Your task to perform on an android device: turn off notifications settings in the gmail app Image 0: 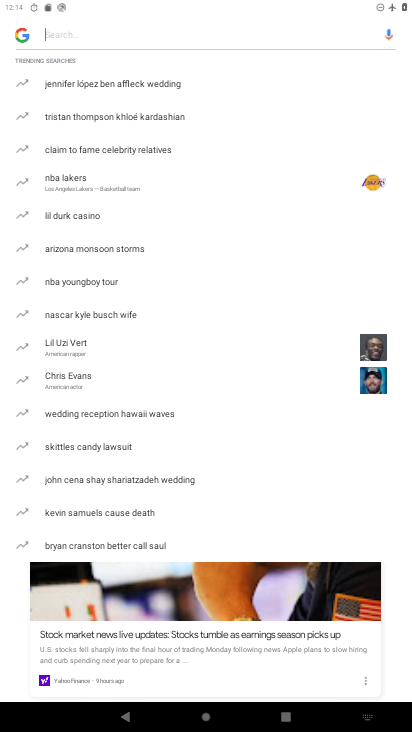
Step 0: press home button
Your task to perform on an android device: turn off notifications settings in the gmail app Image 1: 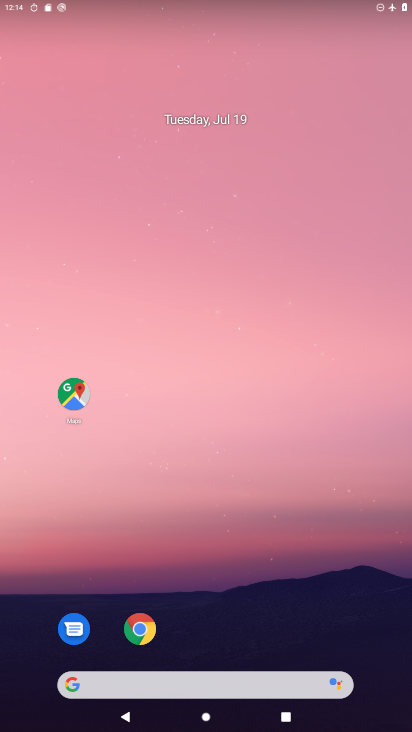
Step 1: drag from (278, 574) to (244, 136)
Your task to perform on an android device: turn off notifications settings in the gmail app Image 2: 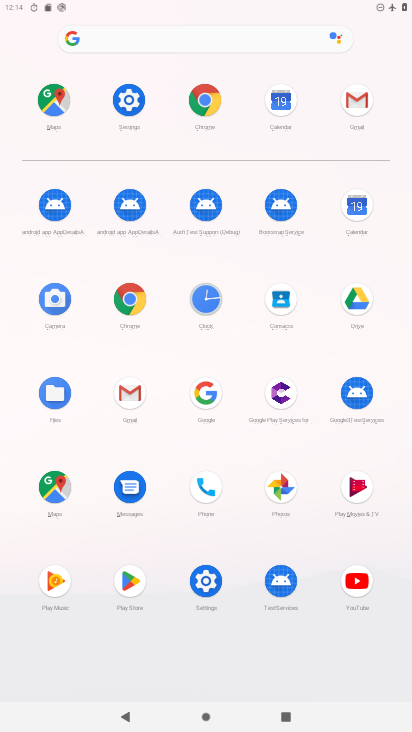
Step 2: click (366, 100)
Your task to perform on an android device: turn off notifications settings in the gmail app Image 3: 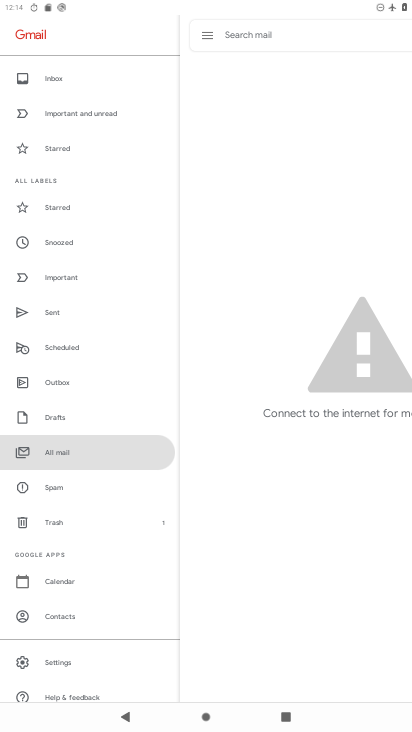
Step 3: click (68, 666)
Your task to perform on an android device: turn off notifications settings in the gmail app Image 4: 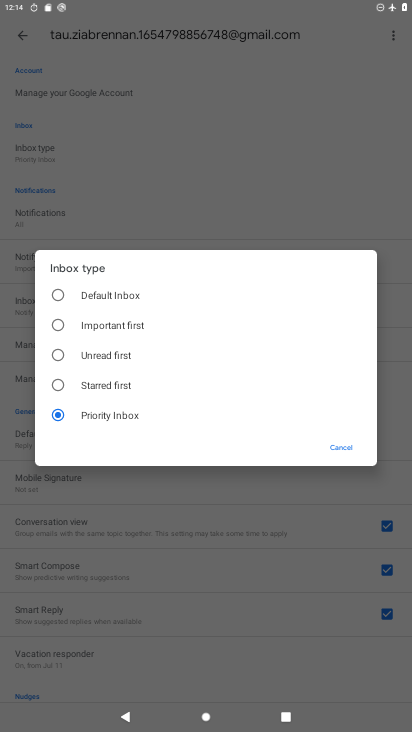
Step 4: click (332, 448)
Your task to perform on an android device: turn off notifications settings in the gmail app Image 5: 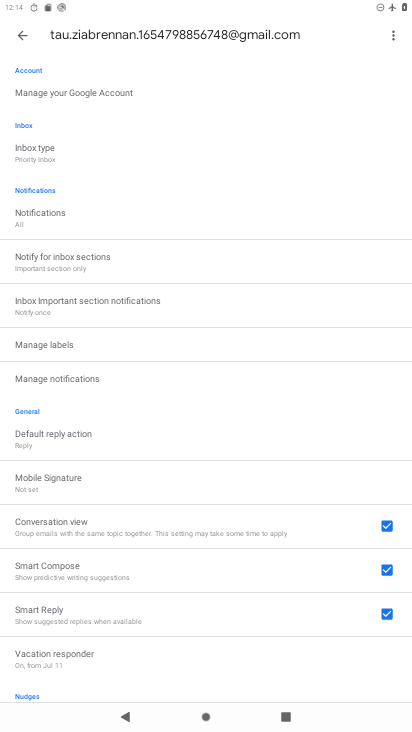
Step 5: click (40, 385)
Your task to perform on an android device: turn off notifications settings in the gmail app Image 6: 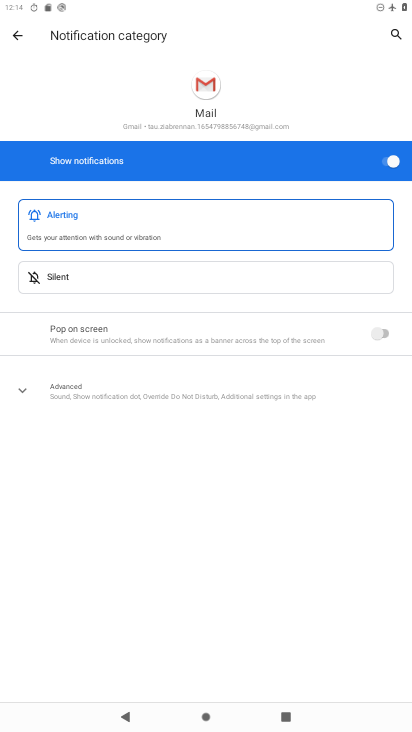
Step 6: click (380, 155)
Your task to perform on an android device: turn off notifications settings in the gmail app Image 7: 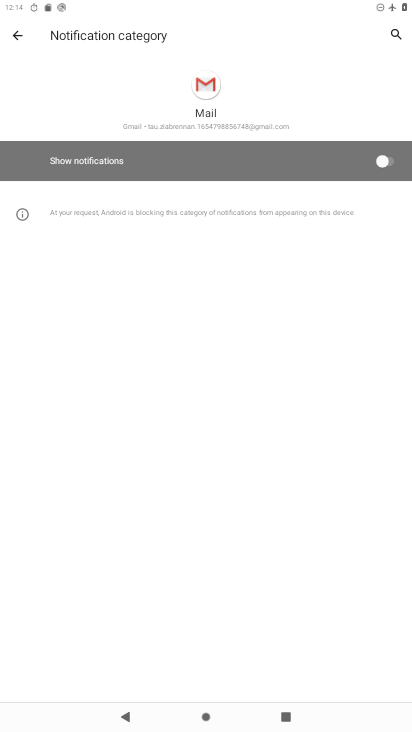
Step 7: task complete